Your task to perform on an android device: See recent photos Image 0: 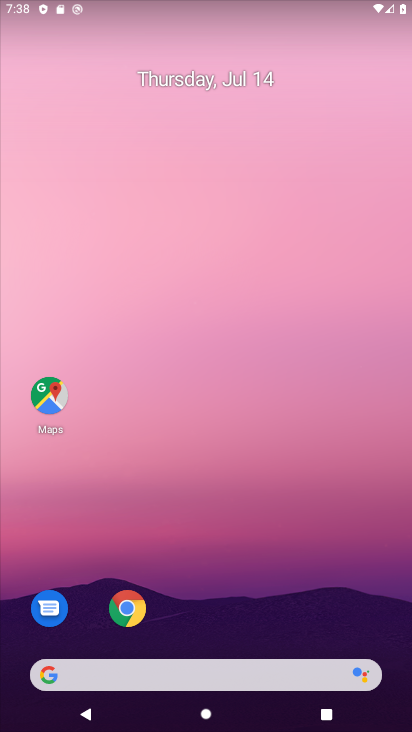
Step 0: drag from (254, 576) to (296, 295)
Your task to perform on an android device: See recent photos Image 1: 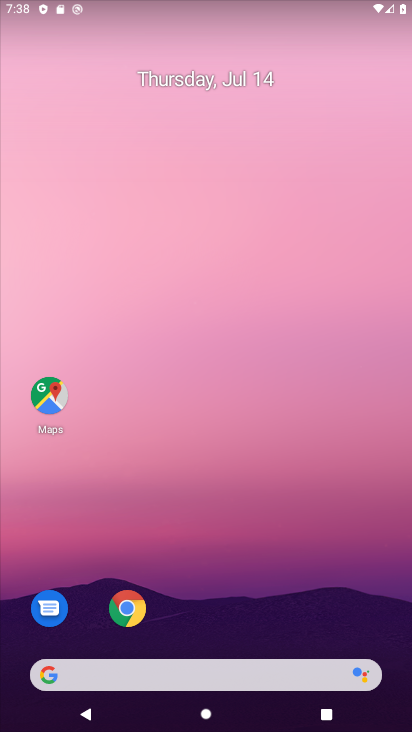
Step 1: drag from (245, 623) to (251, 269)
Your task to perform on an android device: See recent photos Image 2: 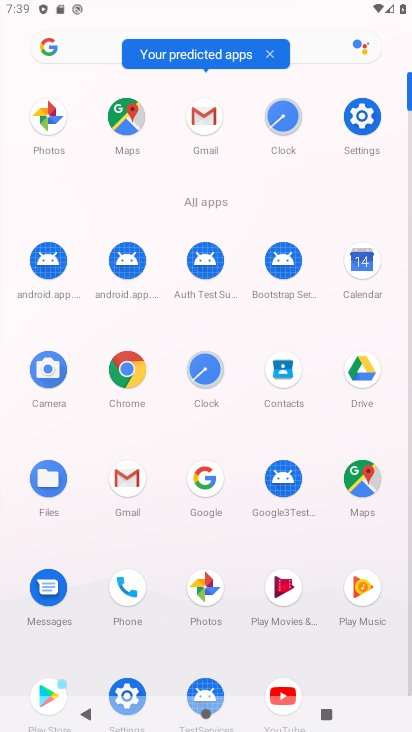
Step 2: click (205, 586)
Your task to perform on an android device: See recent photos Image 3: 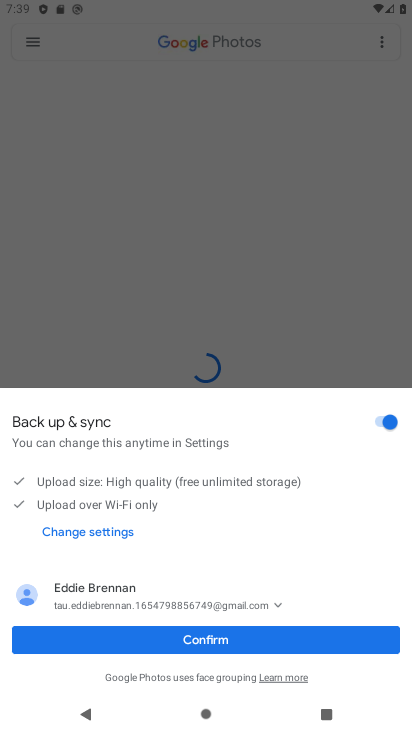
Step 3: click (340, 633)
Your task to perform on an android device: See recent photos Image 4: 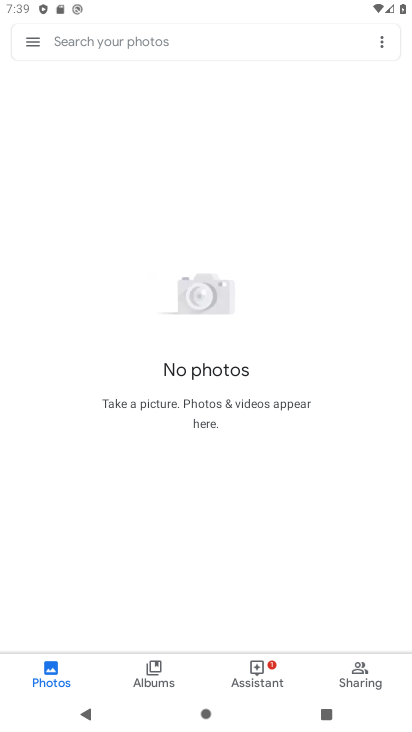
Step 4: task complete